Your task to perform on an android device: Open Yahoo.com Image 0: 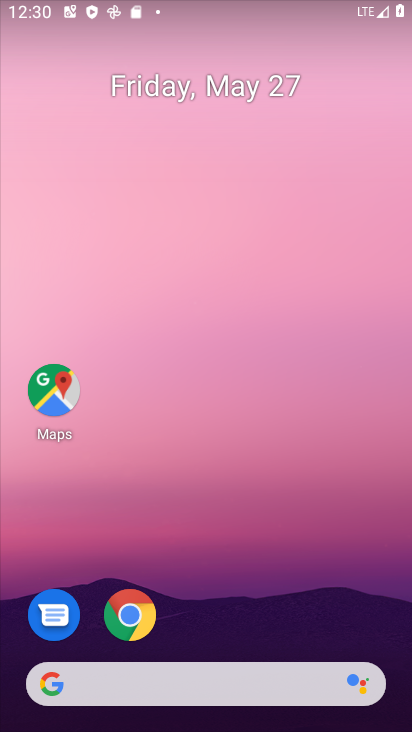
Step 0: drag from (273, 614) to (317, 5)
Your task to perform on an android device: Open Yahoo.com Image 1: 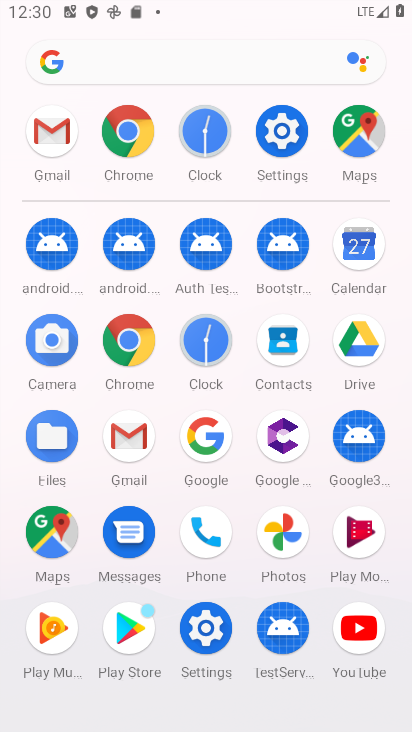
Step 1: click (133, 335)
Your task to perform on an android device: Open Yahoo.com Image 2: 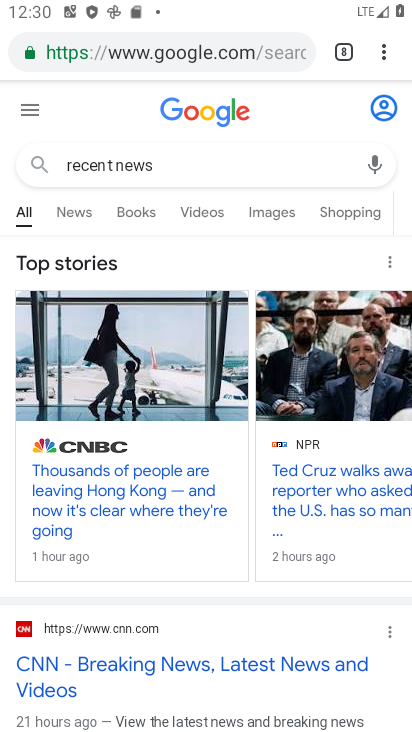
Step 2: click (234, 59)
Your task to perform on an android device: Open Yahoo.com Image 3: 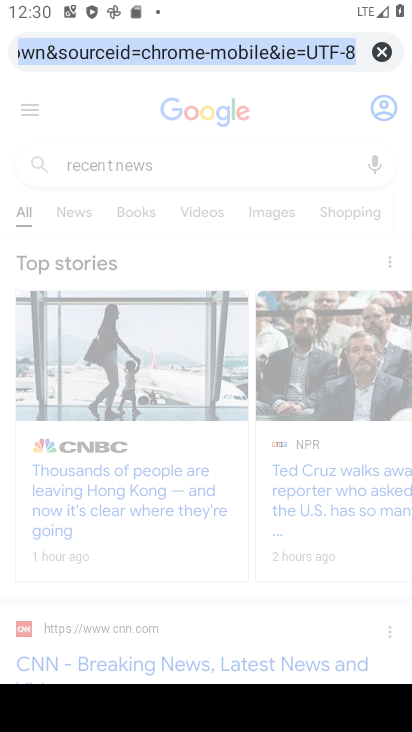
Step 3: type "yahoo.com"
Your task to perform on an android device: Open Yahoo.com Image 4: 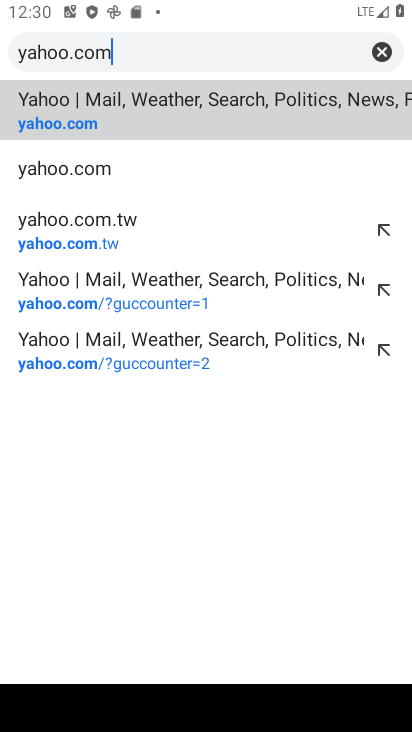
Step 4: click (183, 91)
Your task to perform on an android device: Open Yahoo.com Image 5: 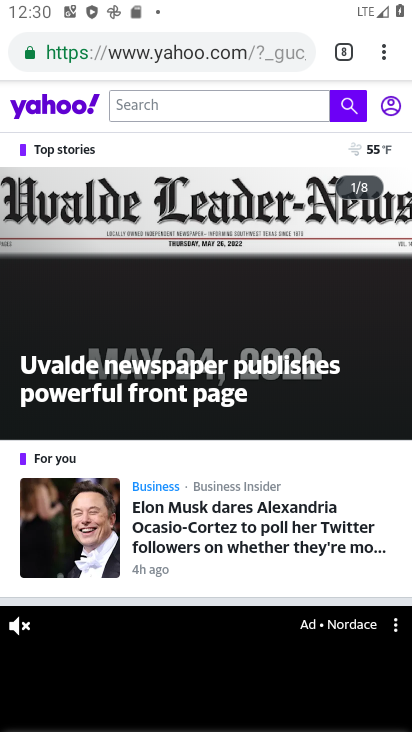
Step 5: task complete